Your task to perform on an android device: Open ESPN.com Image 0: 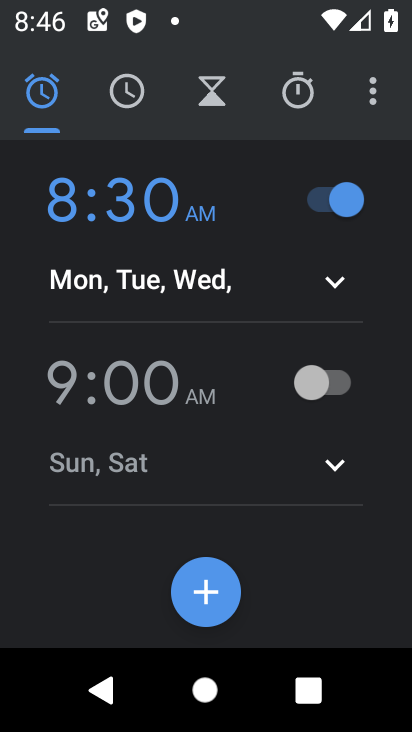
Step 0: press home button
Your task to perform on an android device: Open ESPN.com Image 1: 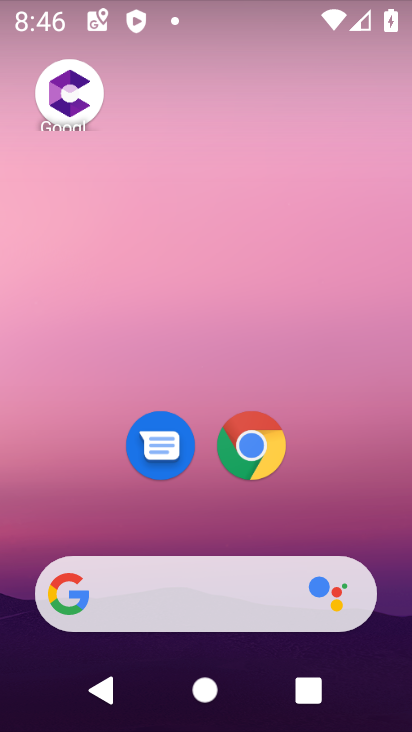
Step 1: click (239, 445)
Your task to perform on an android device: Open ESPN.com Image 2: 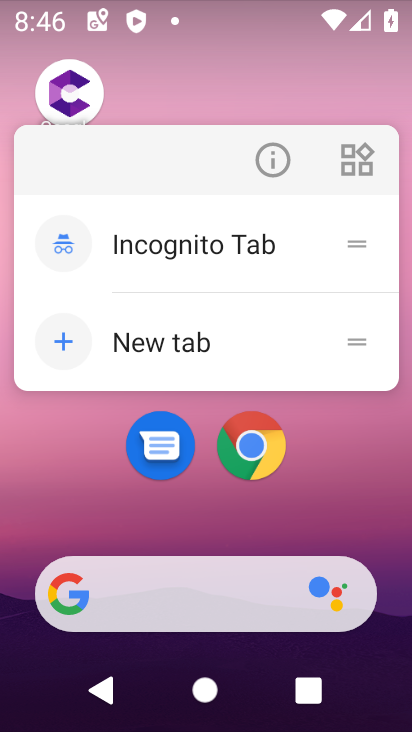
Step 2: click (255, 432)
Your task to perform on an android device: Open ESPN.com Image 3: 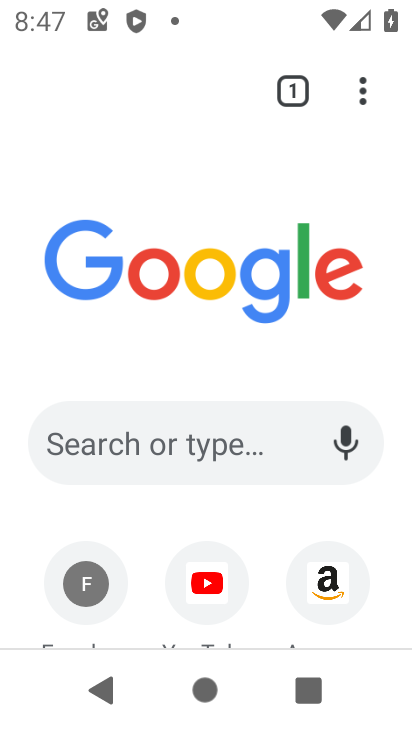
Step 3: drag from (11, 514) to (87, 238)
Your task to perform on an android device: Open ESPN.com Image 4: 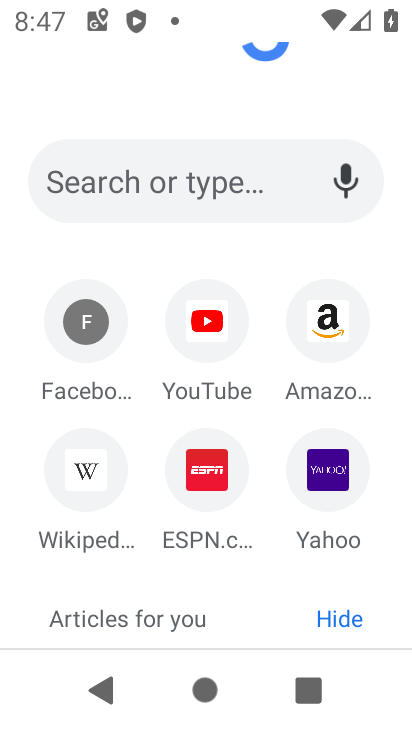
Step 4: click (205, 481)
Your task to perform on an android device: Open ESPN.com Image 5: 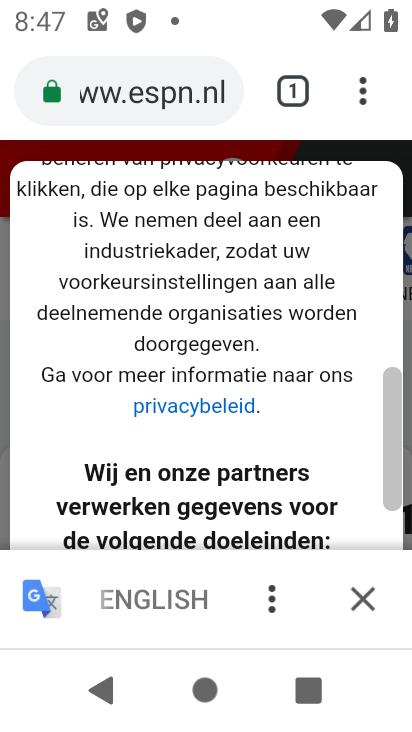
Step 5: task complete